Your task to perform on an android device: Open battery settings Image 0: 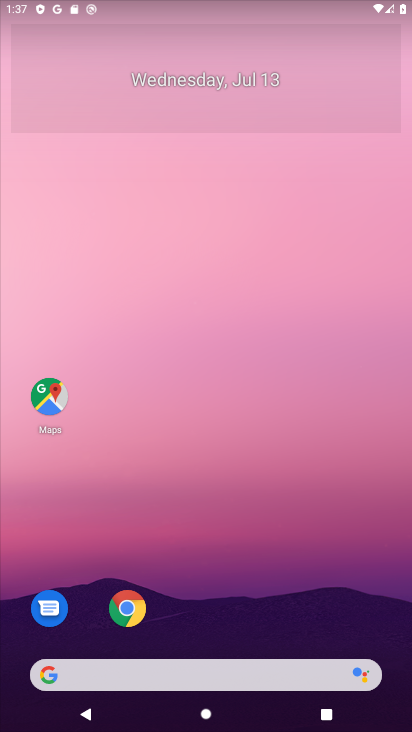
Step 0: drag from (207, 632) to (295, 92)
Your task to perform on an android device: Open battery settings Image 1: 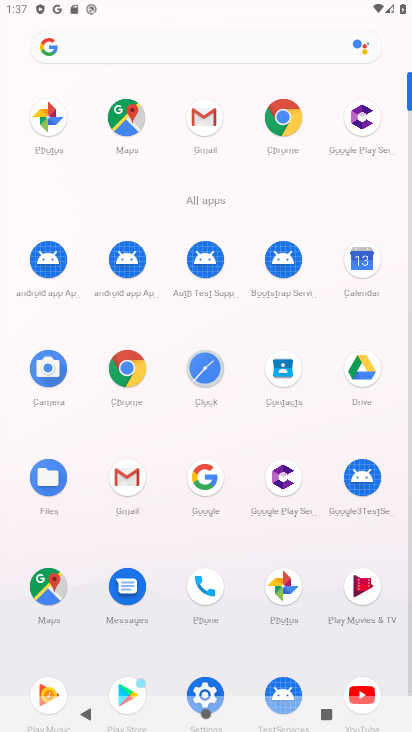
Step 1: click (198, 680)
Your task to perform on an android device: Open battery settings Image 2: 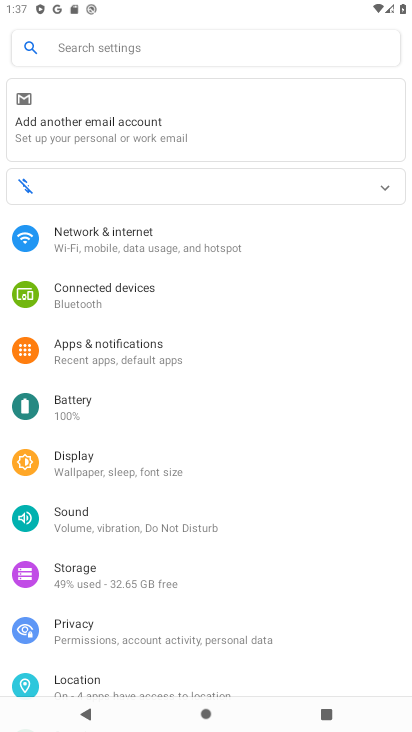
Step 2: click (64, 412)
Your task to perform on an android device: Open battery settings Image 3: 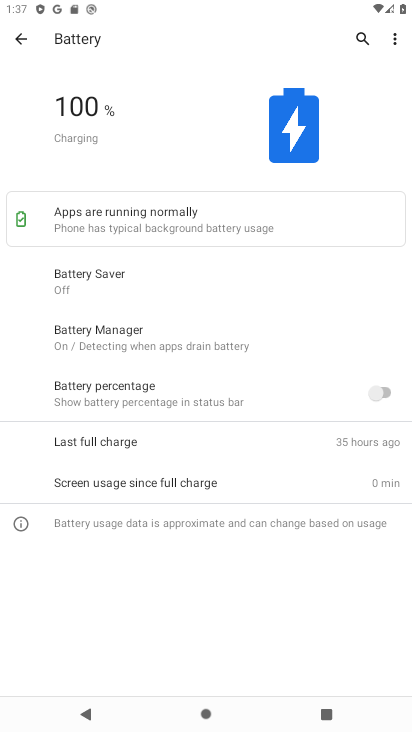
Step 3: task complete